Your task to perform on an android device: Add "apple airpods pro" to the cart on amazon.com Image 0: 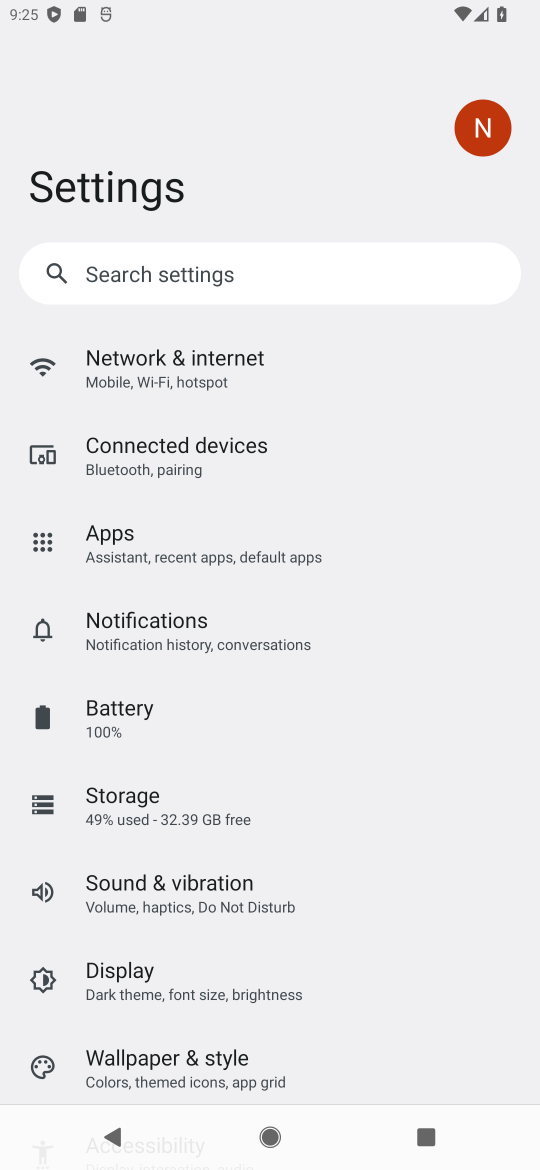
Step 0: press home button
Your task to perform on an android device: Add "apple airpods pro" to the cart on amazon.com Image 1: 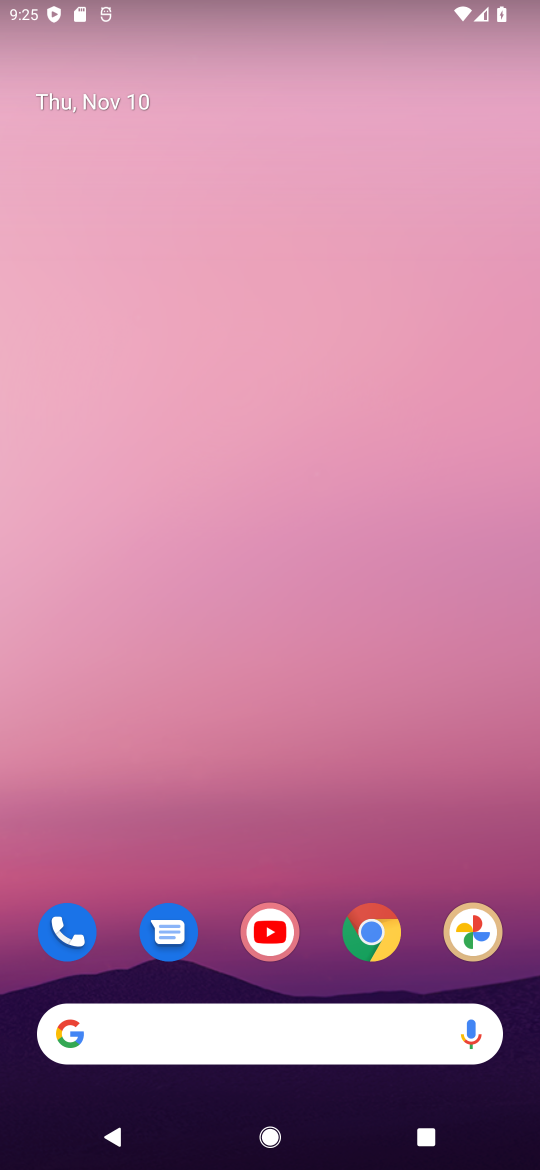
Step 1: click (382, 927)
Your task to perform on an android device: Add "apple airpods pro" to the cart on amazon.com Image 2: 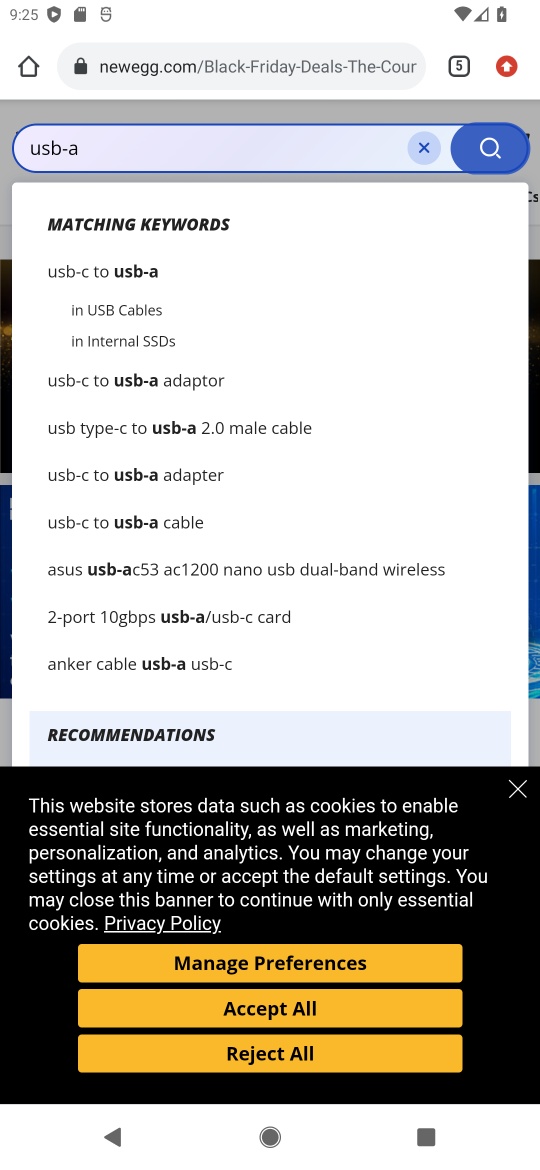
Step 2: click (281, 1063)
Your task to perform on an android device: Add "apple airpods pro" to the cart on amazon.com Image 3: 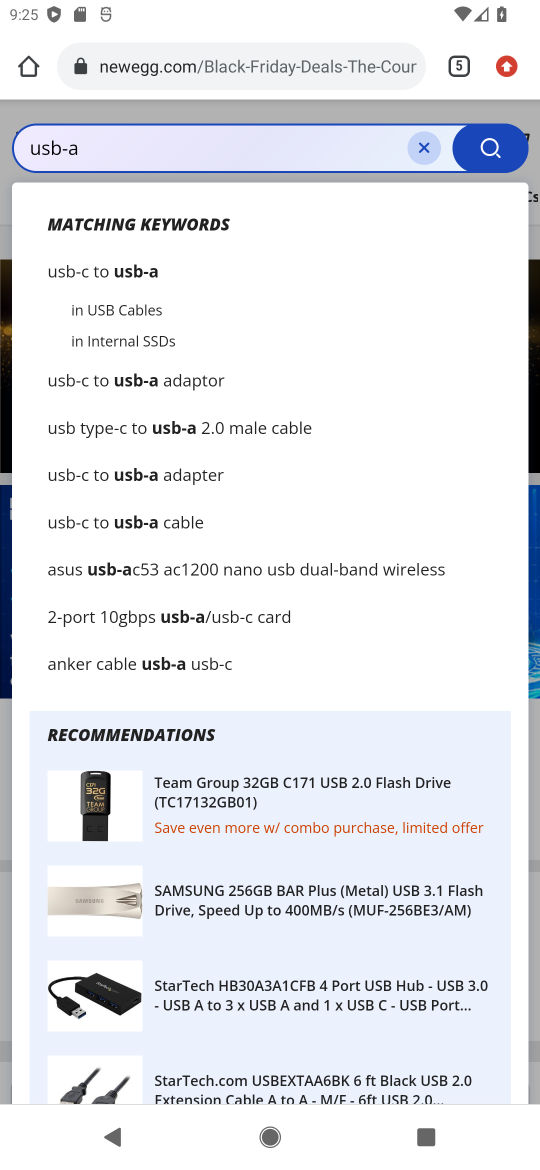
Step 3: click (461, 63)
Your task to perform on an android device: Add "apple airpods pro" to the cart on amazon.com Image 4: 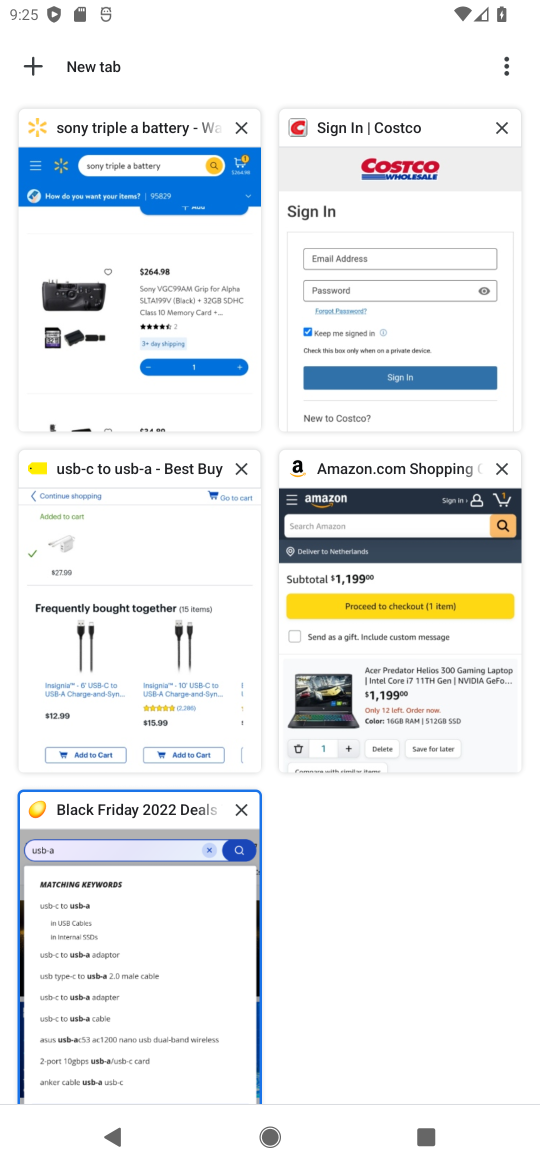
Step 4: click (385, 617)
Your task to perform on an android device: Add "apple airpods pro" to the cart on amazon.com Image 5: 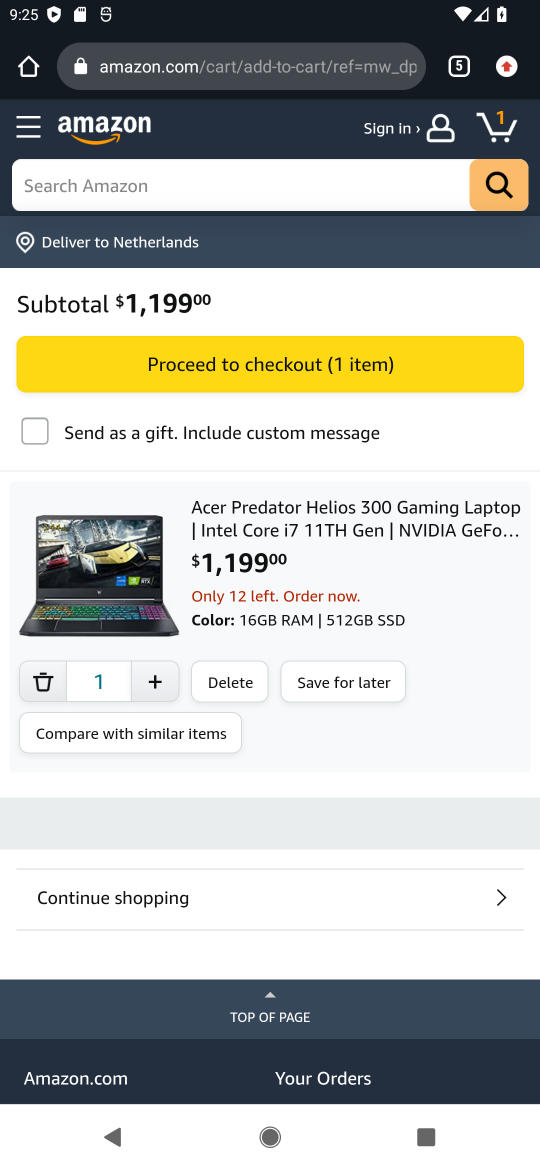
Step 5: click (292, 181)
Your task to perform on an android device: Add "apple airpods pro" to the cart on amazon.com Image 6: 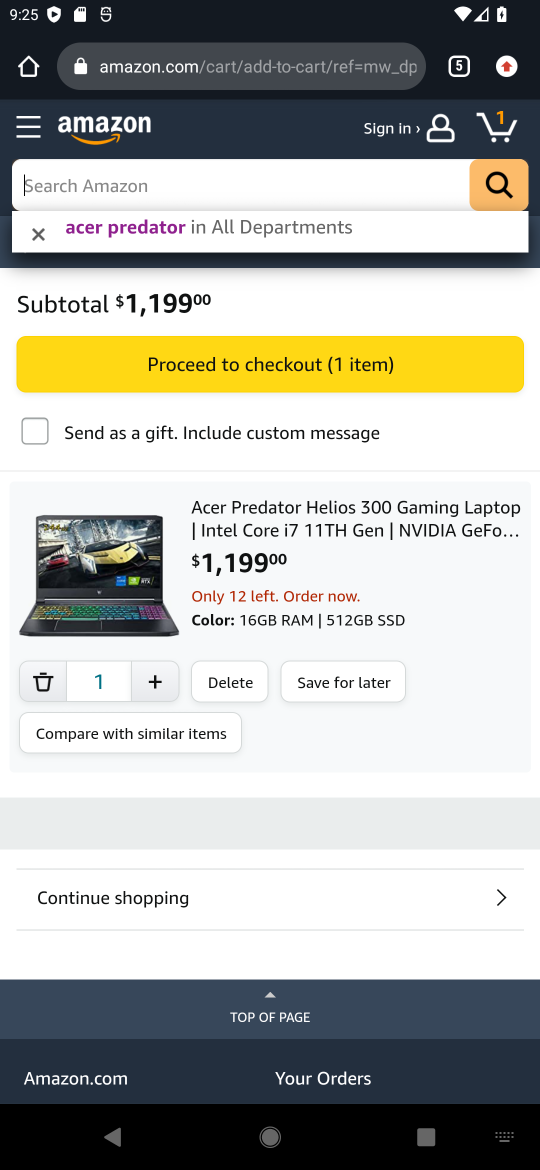
Step 6: type "apple airpods pro"
Your task to perform on an android device: Add "apple airpods pro" to the cart on amazon.com Image 7: 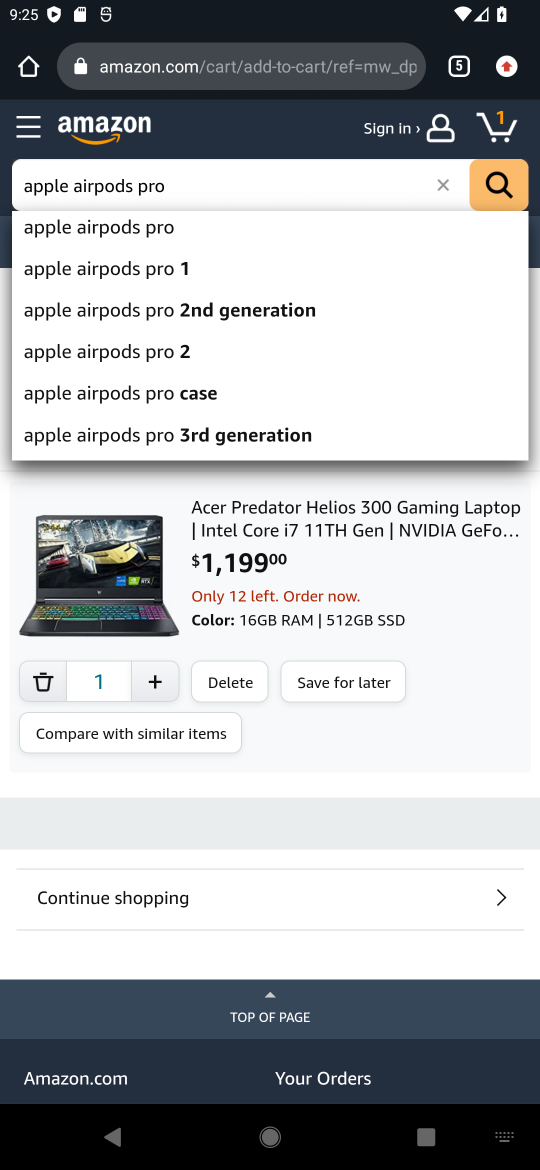
Step 7: click (150, 222)
Your task to perform on an android device: Add "apple airpods pro" to the cart on amazon.com Image 8: 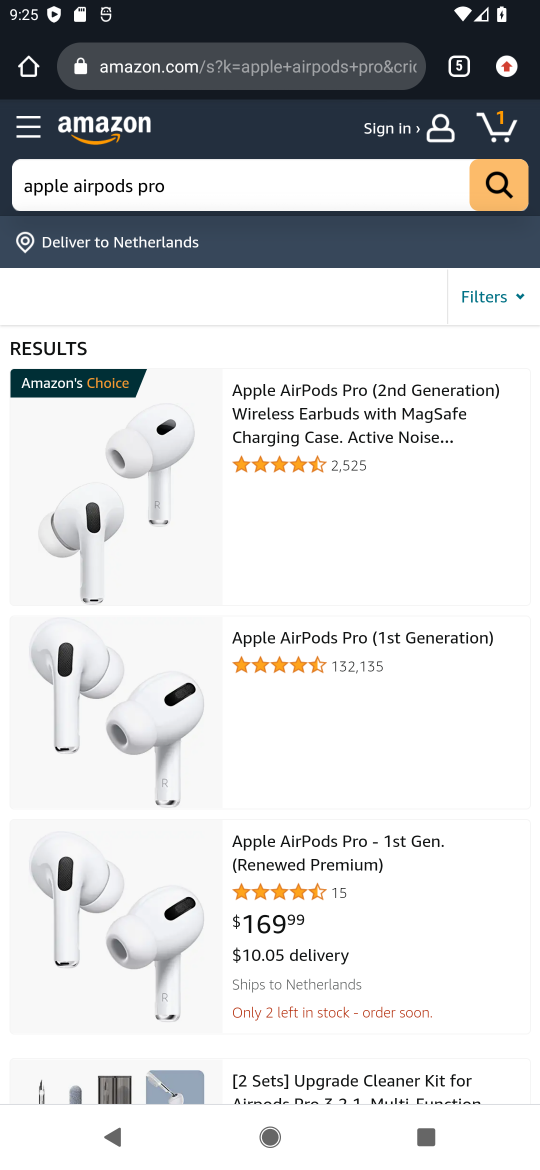
Step 8: click (359, 416)
Your task to perform on an android device: Add "apple airpods pro" to the cart on amazon.com Image 9: 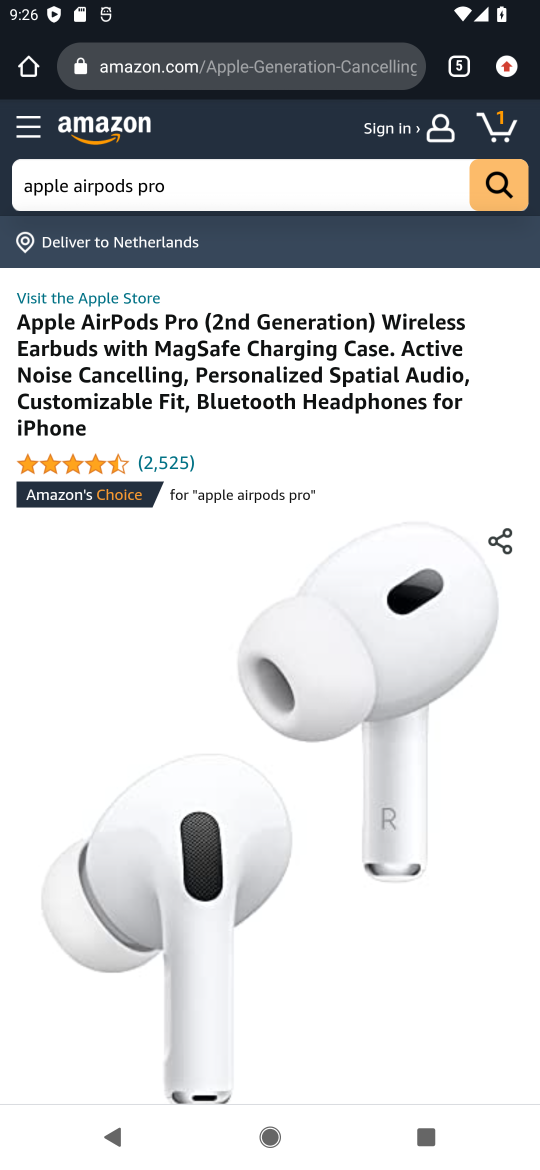
Step 9: drag from (337, 808) to (352, 286)
Your task to perform on an android device: Add "apple airpods pro" to the cart on amazon.com Image 10: 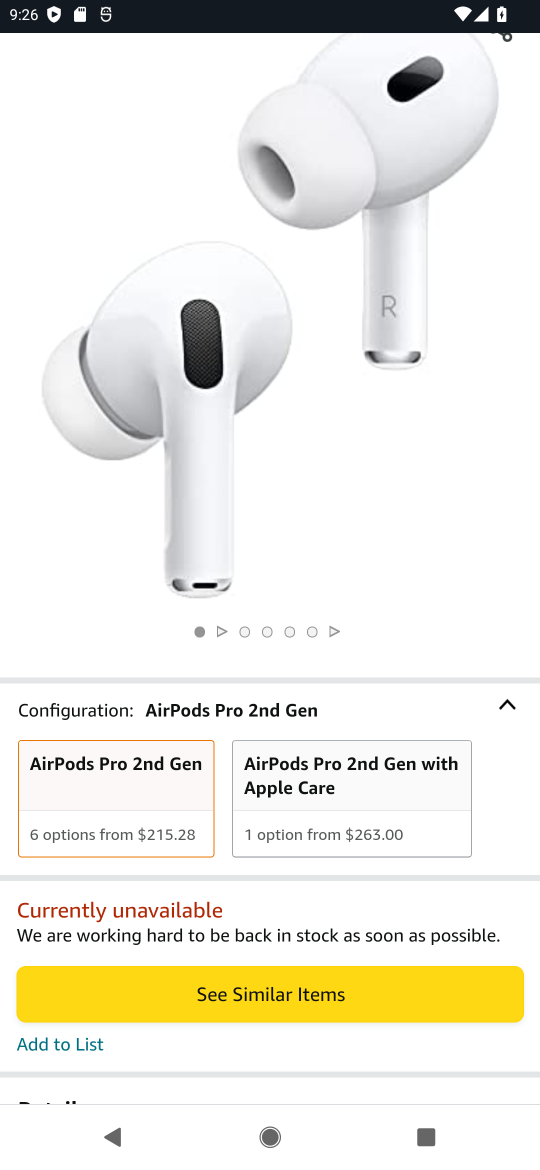
Step 10: click (232, 984)
Your task to perform on an android device: Add "apple airpods pro" to the cart on amazon.com Image 11: 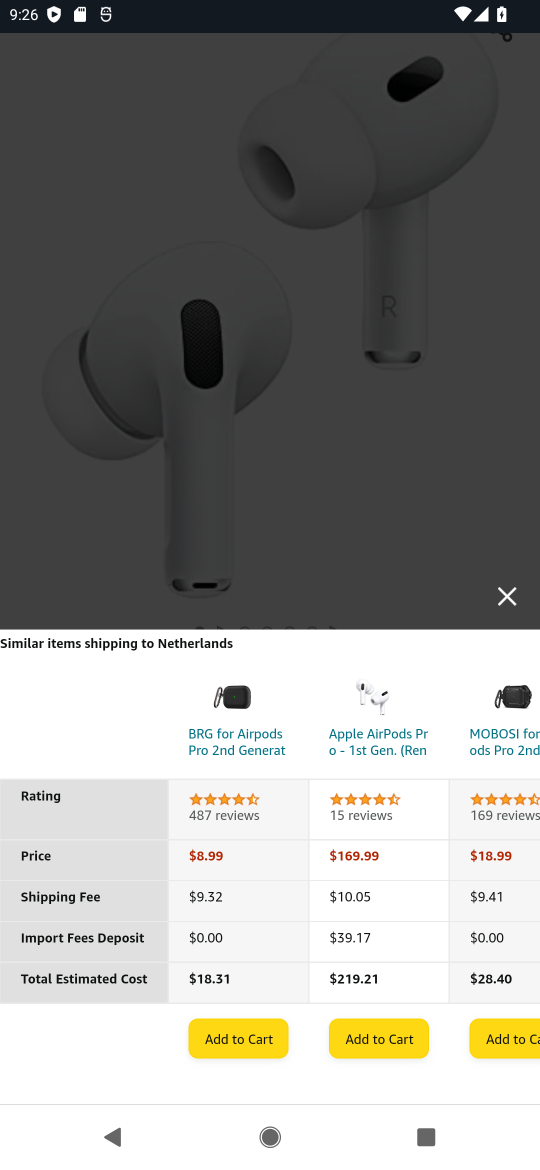
Step 11: click (237, 1030)
Your task to perform on an android device: Add "apple airpods pro" to the cart on amazon.com Image 12: 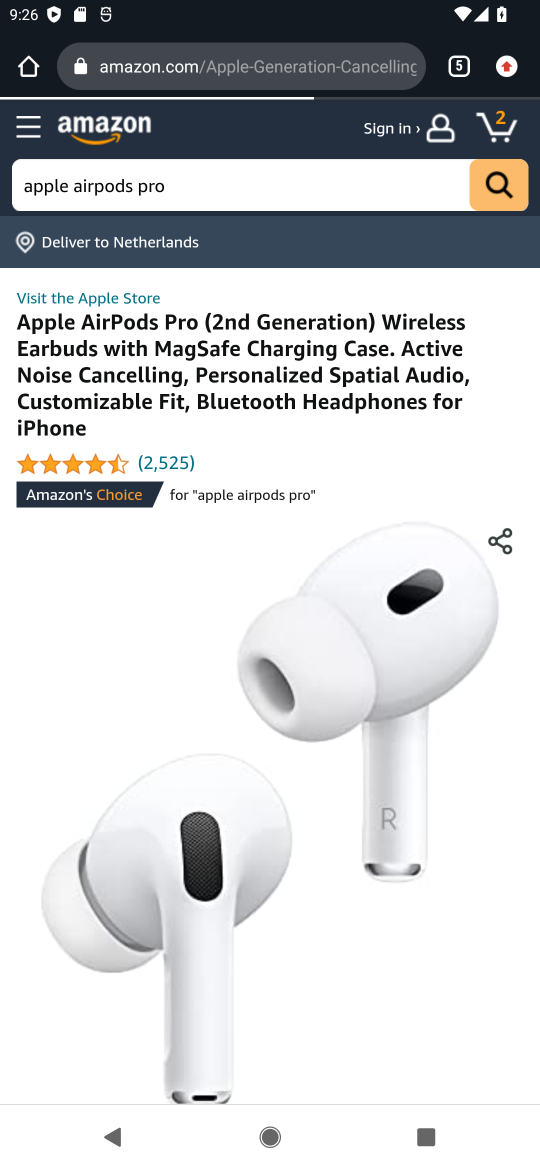
Step 12: task complete